Your task to perform on an android device: turn off priority inbox in the gmail app Image 0: 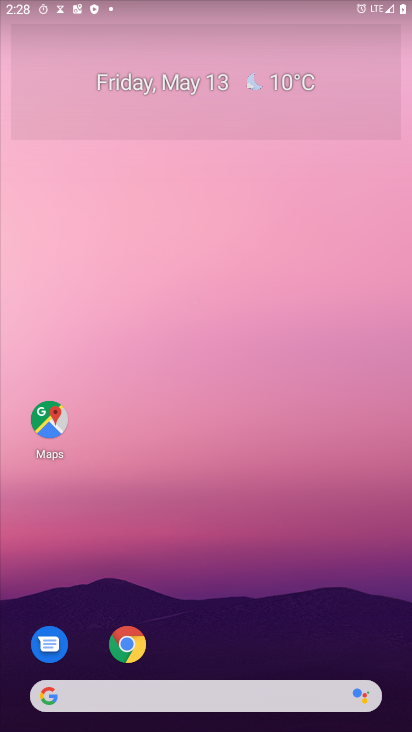
Step 0: drag from (243, 725) to (233, 265)
Your task to perform on an android device: turn off priority inbox in the gmail app Image 1: 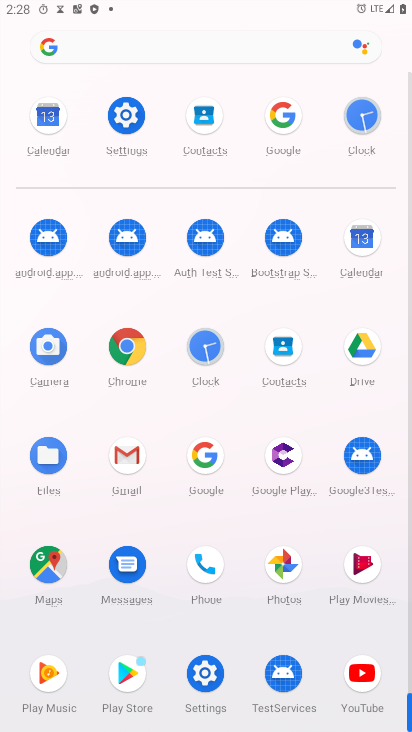
Step 1: click (127, 465)
Your task to perform on an android device: turn off priority inbox in the gmail app Image 2: 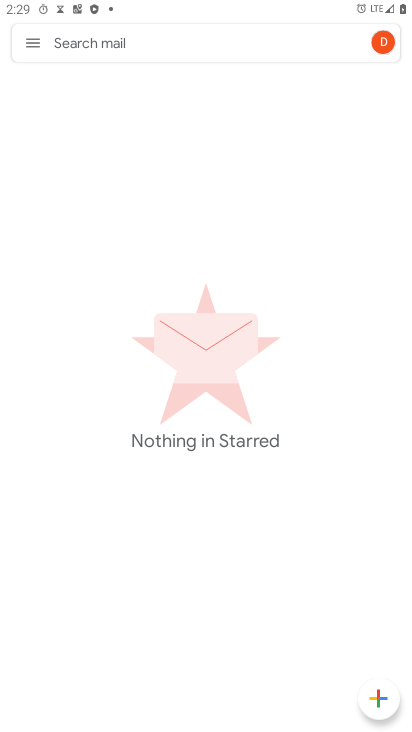
Step 2: click (33, 49)
Your task to perform on an android device: turn off priority inbox in the gmail app Image 3: 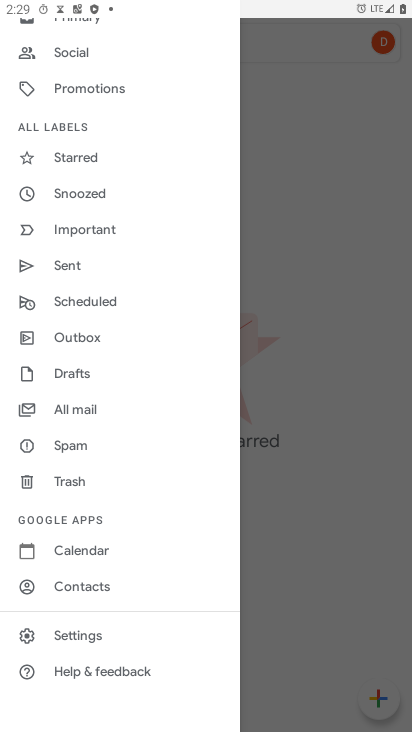
Step 3: click (75, 634)
Your task to perform on an android device: turn off priority inbox in the gmail app Image 4: 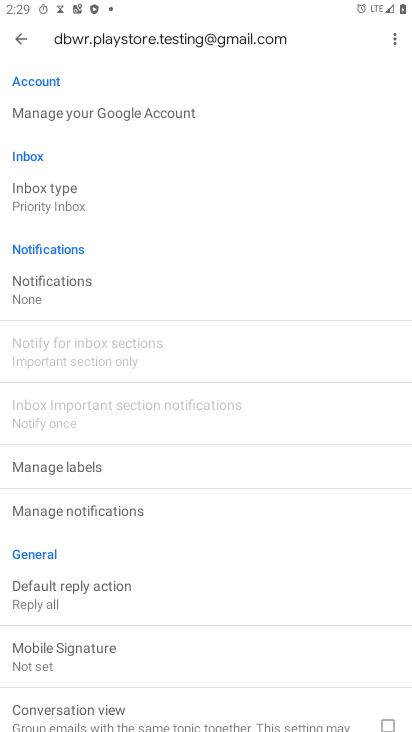
Step 4: click (48, 190)
Your task to perform on an android device: turn off priority inbox in the gmail app Image 5: 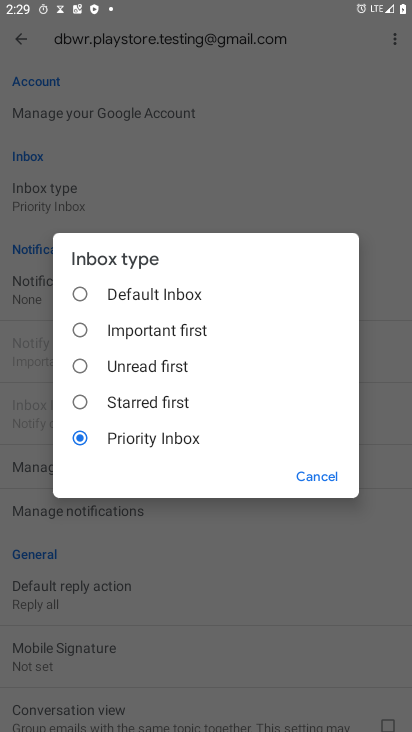
Step 5: click (80, 290)
Your task to perform on an android device: turn off priority inbox in the gmail app Image 6: 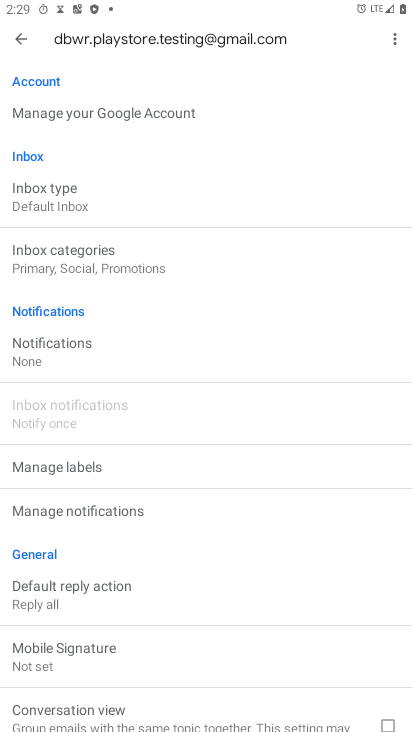
Step 6: task complete